Your task to perform on an android device: Open my contact list Image 0: 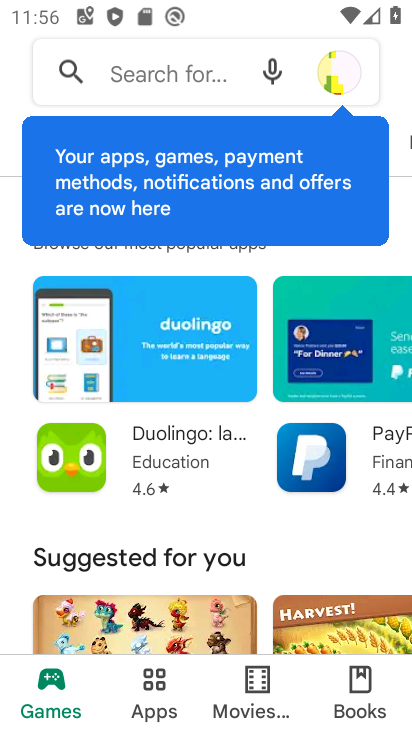
Step 0: press home button
Your task to perform on an android device: Open my contact list Image 1: 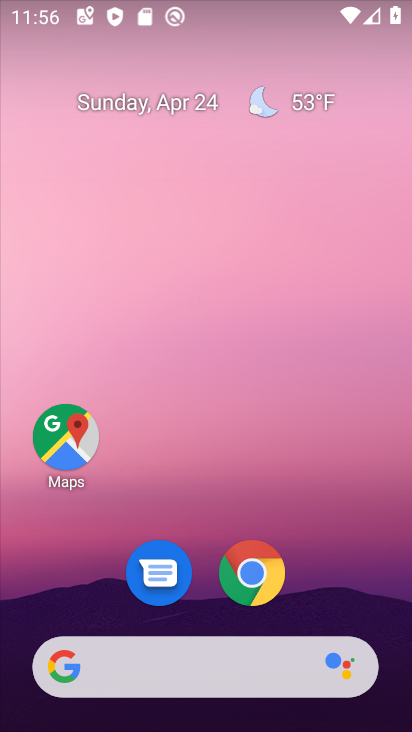
Step 1: drag from (338, 544) to (315, 69)
Your task to perform on an android device: Open my contact list Image 2: 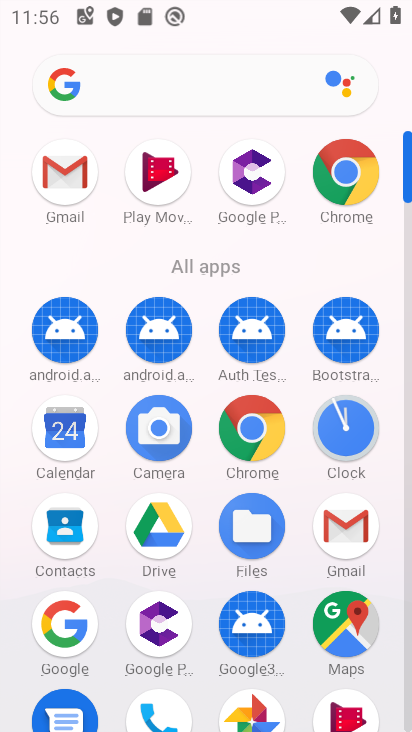
Step 2: click (73, 519)
Your task to perform on an android device: Open my contact list Image 3: 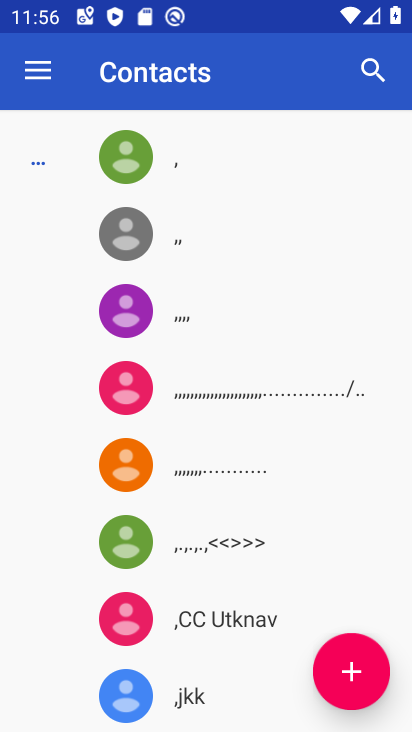
Step 3: task complete